Your task to perform on an android device: turn on notifications settings in the gmail app Image 0: 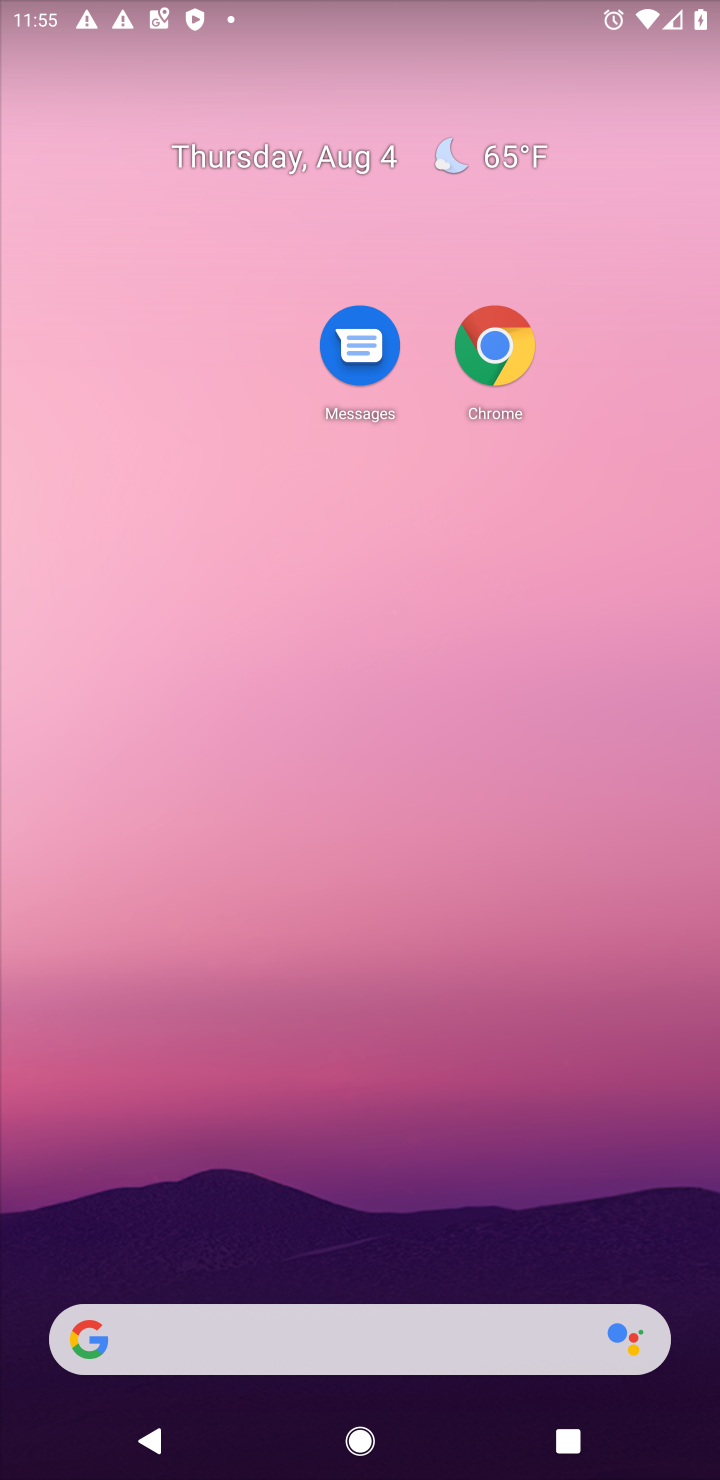
Step 0: drag from (440, 930) to (691, 103)
Your task to perform on an android device: turn on notifications settings in the gmail app Image 1: 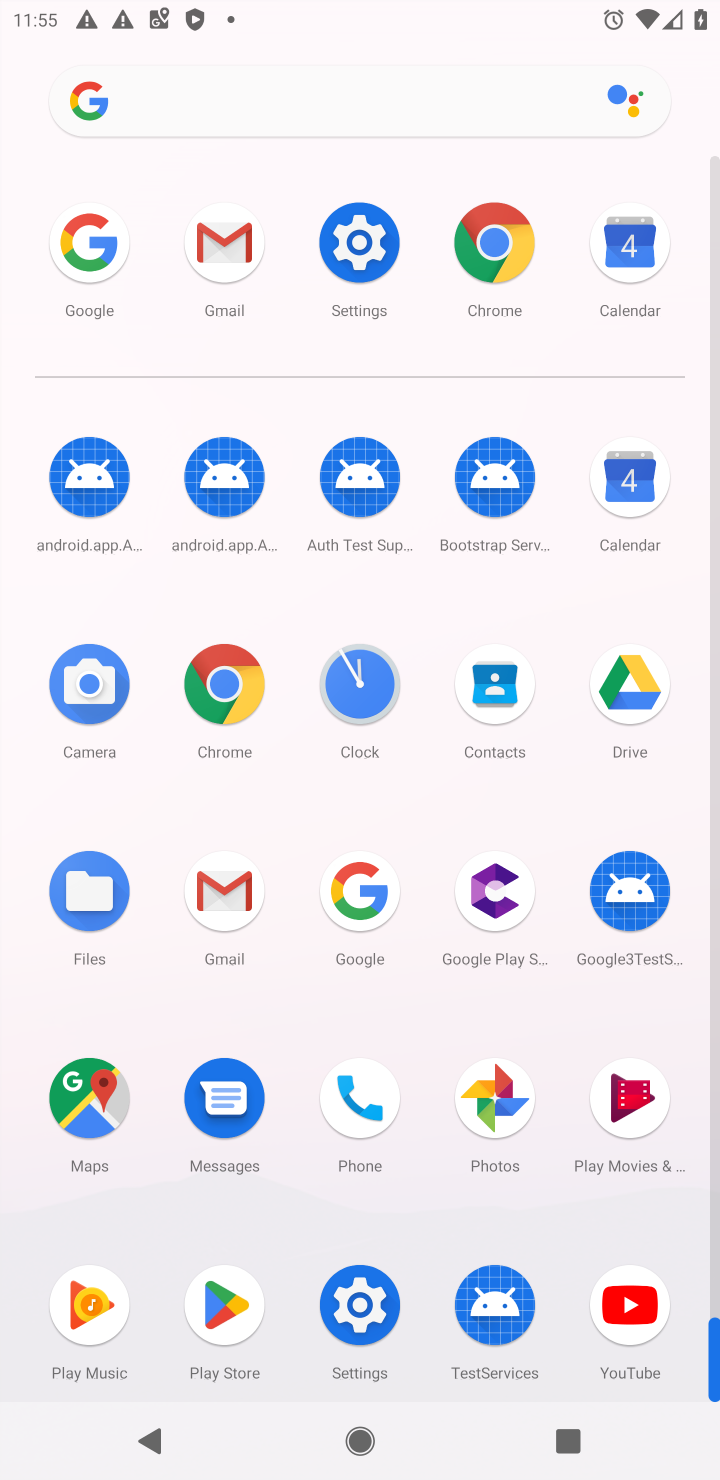
Step 1: click (201, 256)
Your task to perform on an android device: turn on notifications settings in the gmail app Image 2: 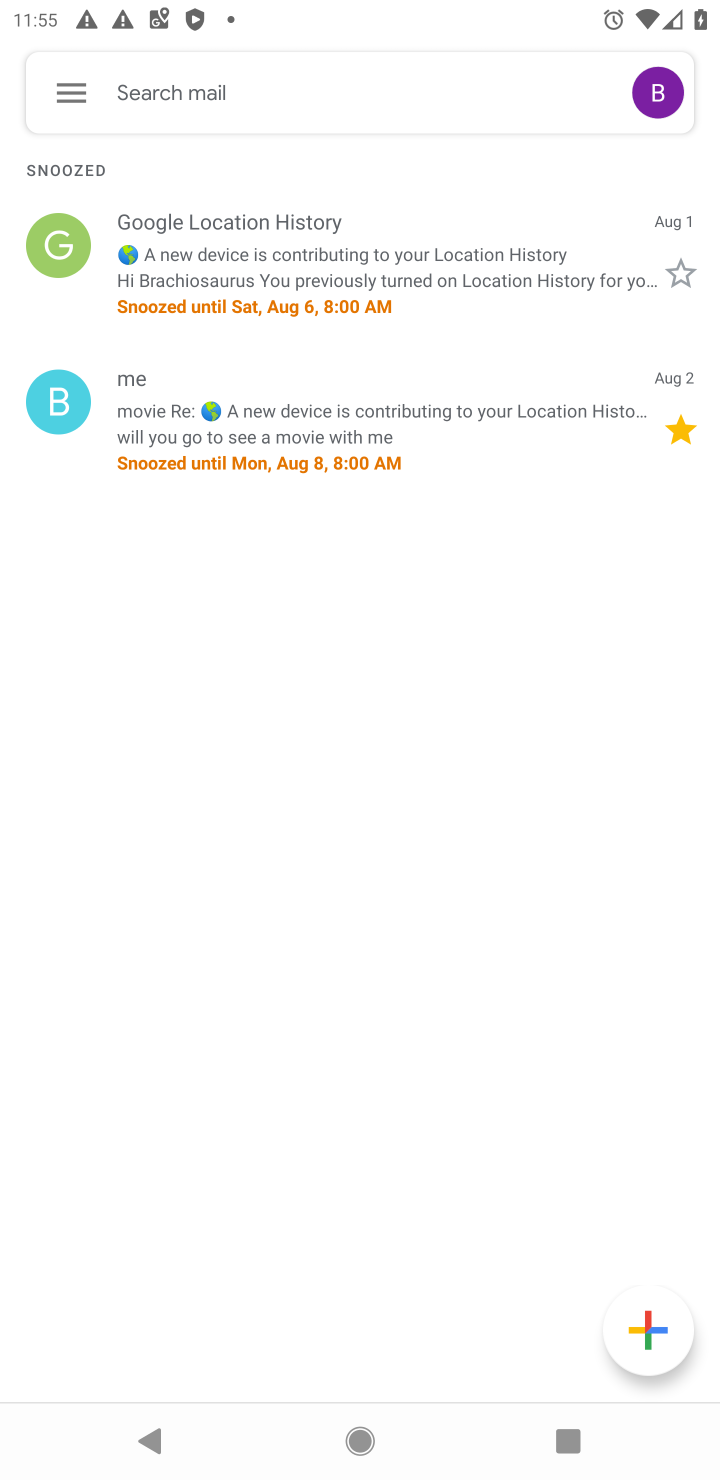
Step 2: click (86, 113)
Your task to perform on an android device: turn on notifications settings in the gmail app Image 3: 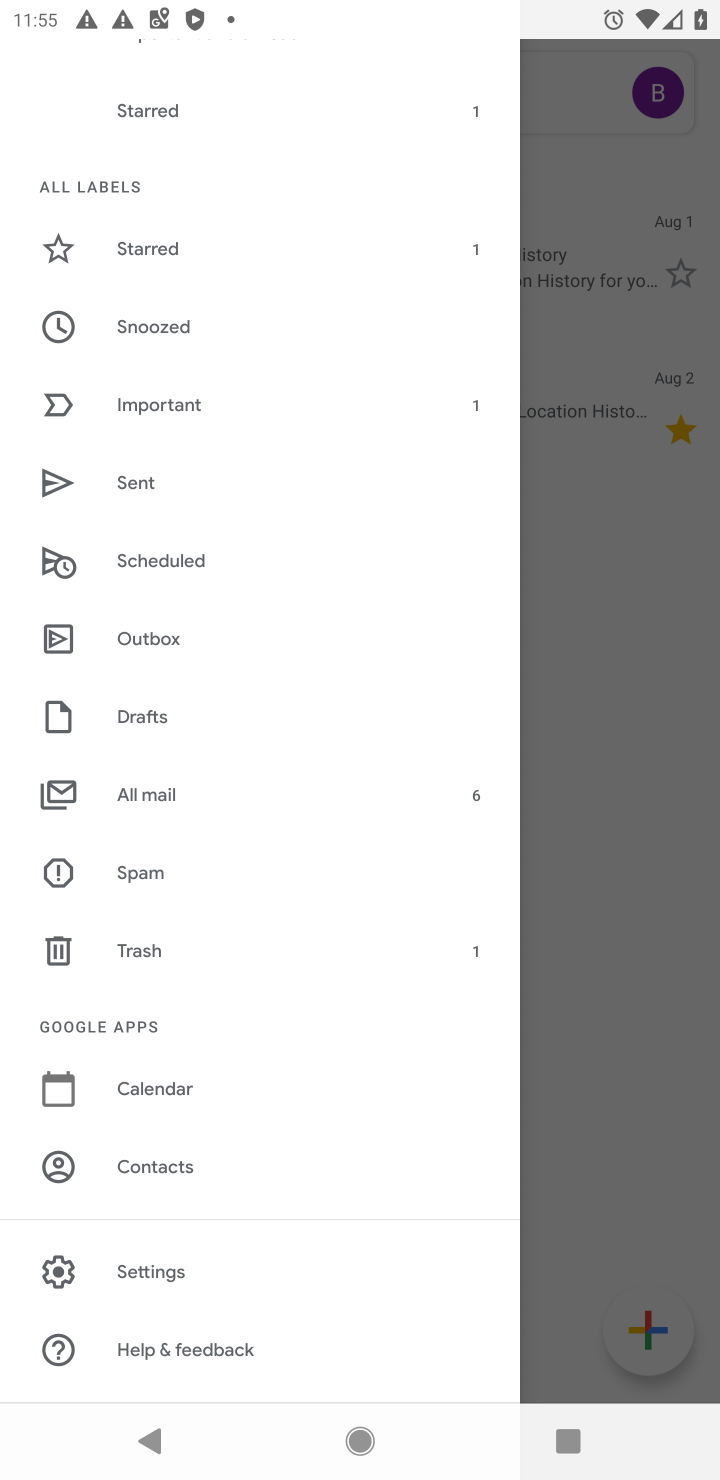
Step 3: click (128, 1302)
Your task to perform on an android device: turn on notifications settings in the gmail app Image 4: 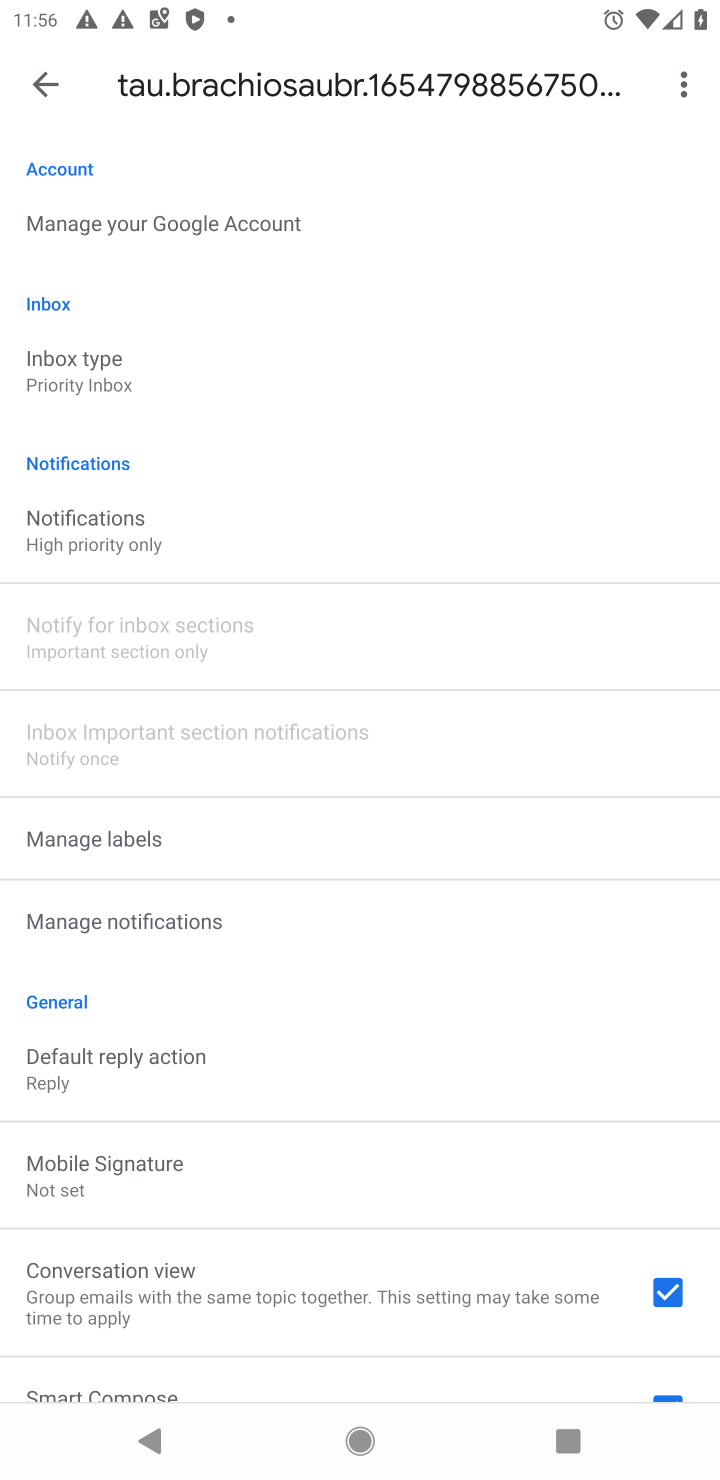
Step 4: click (81, 533)
Your task to perform on an android device: turn on notifications settings in the gmail app Image 5: 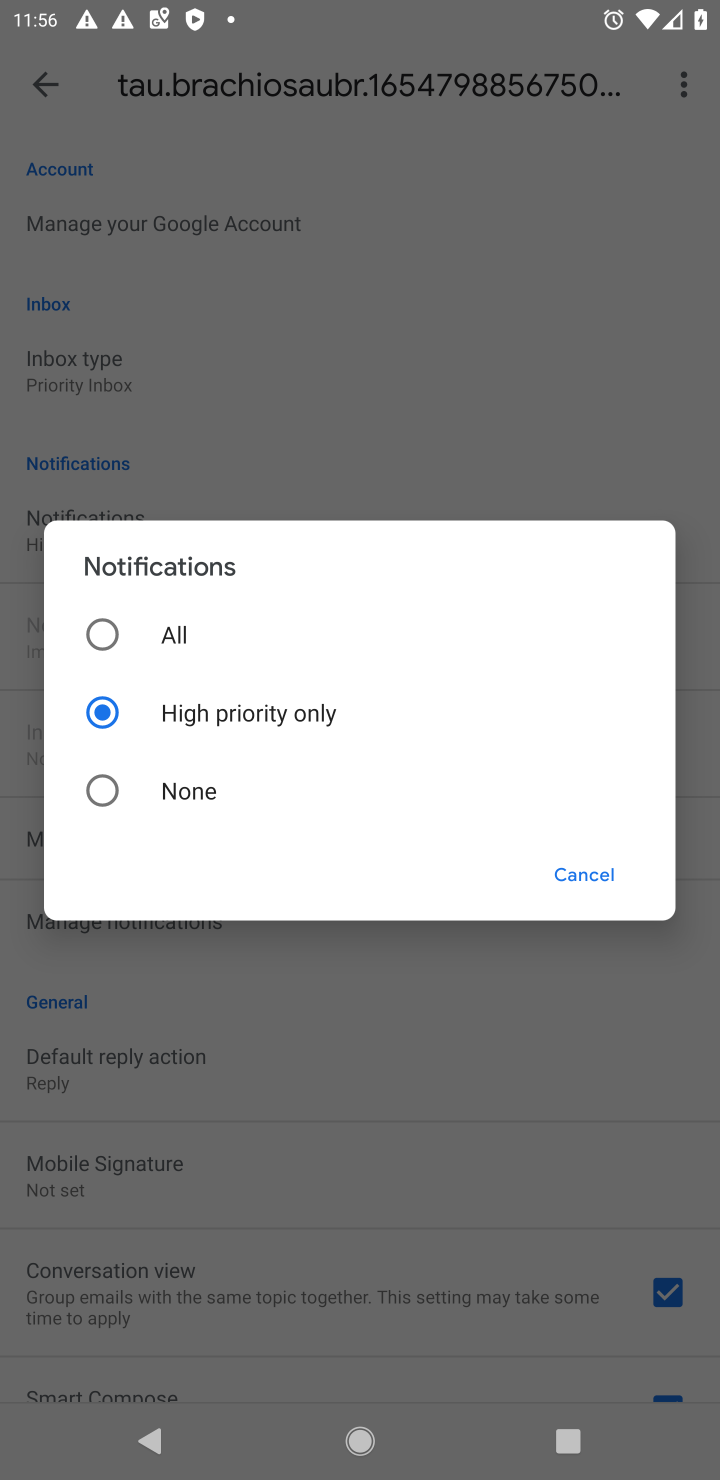
Step 5: click (105, 630)
Your task to perform on an android device: turn on notifications settings in the gmail app Image 6: 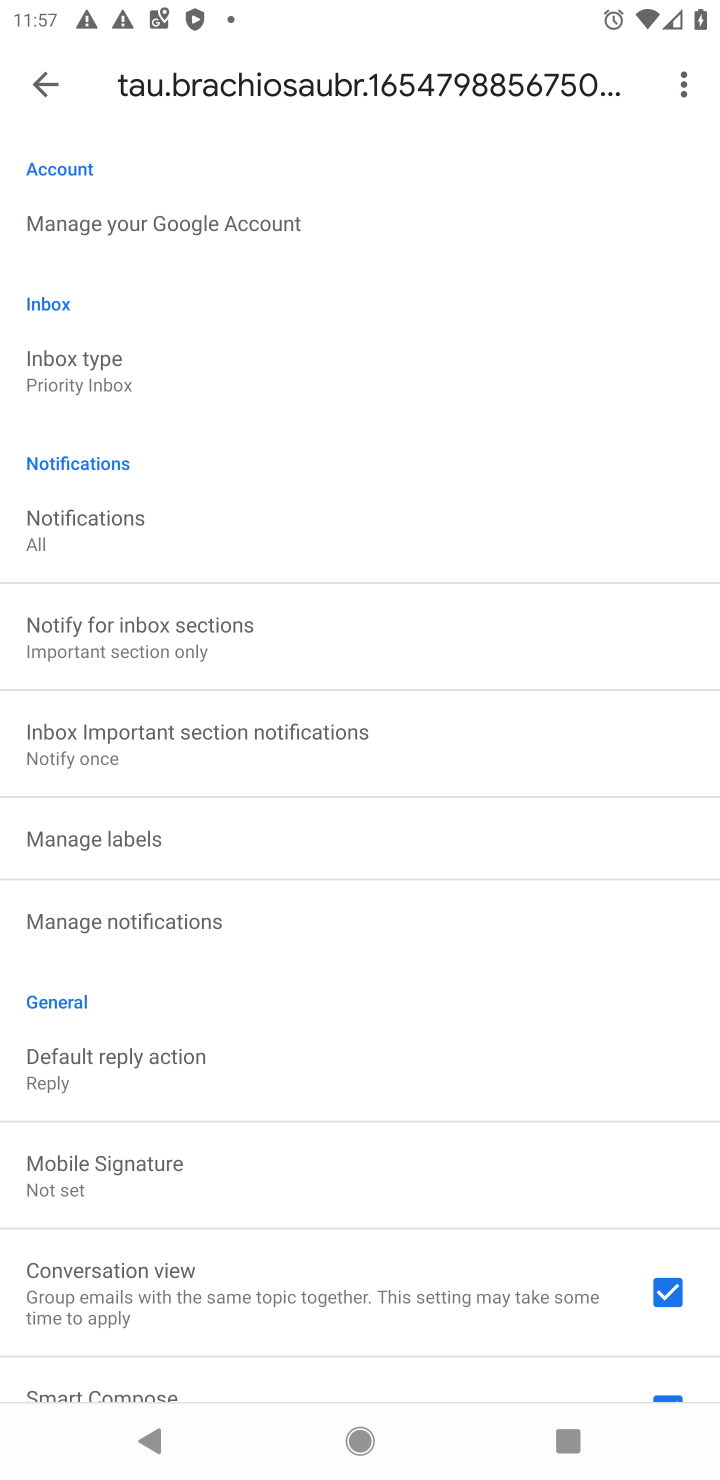
Step 6: task complete